Your task to perform on an android device: Open display settings Image 0: 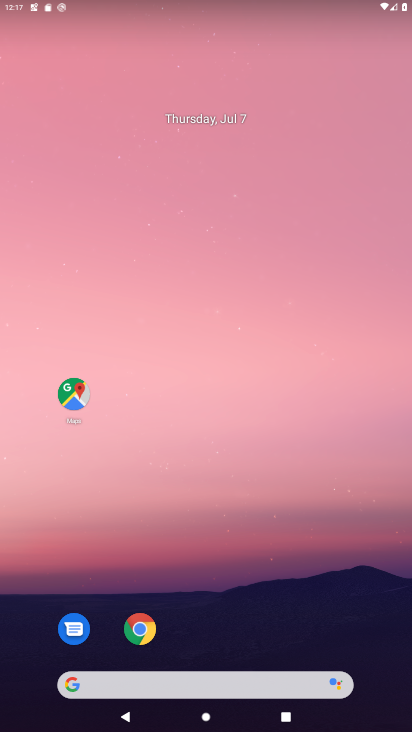
Step 0: drag from (233, 588) to (204, 122)
Your task to perform on an android device: Open display settings Image 1: 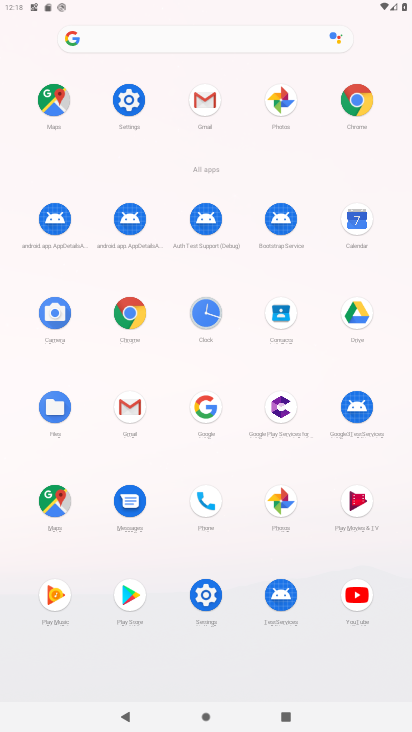
Step 1: click (133, 111)
Your task to perform on an android device: Open display settings Image 2: 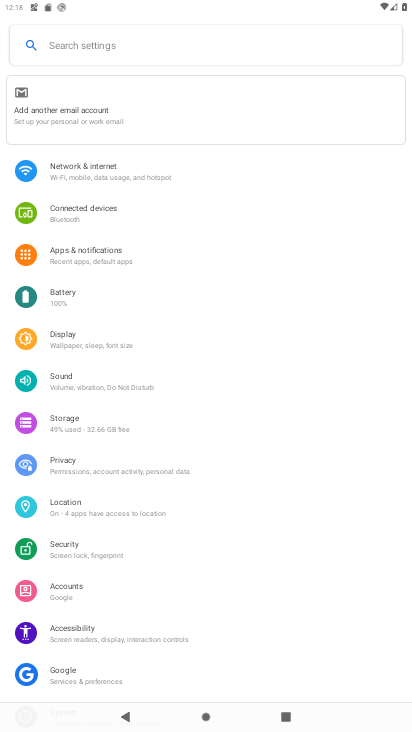
Step 2: click (100, 335)
Your task to perform on an android device: Open display settings Image 3: 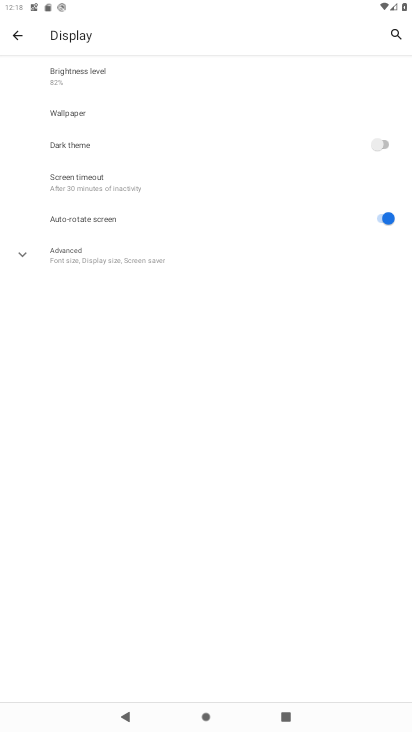
Step 3: task complete